Your task to perform on an android device: Go to wifi settings Image 0: 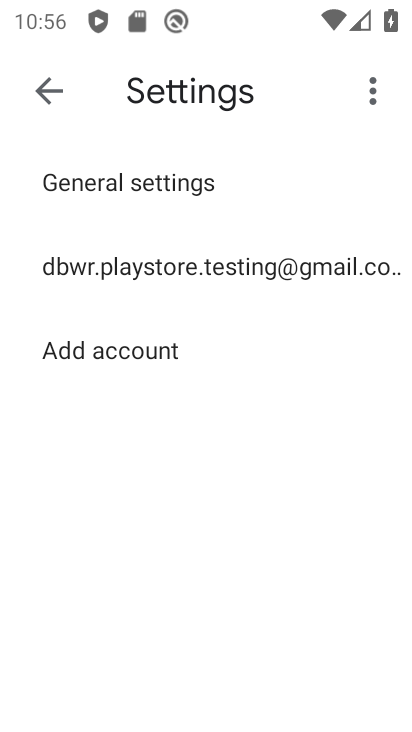
Step 0: press home button
Your task to perform on an android device: Go to wifi settings Image 1: 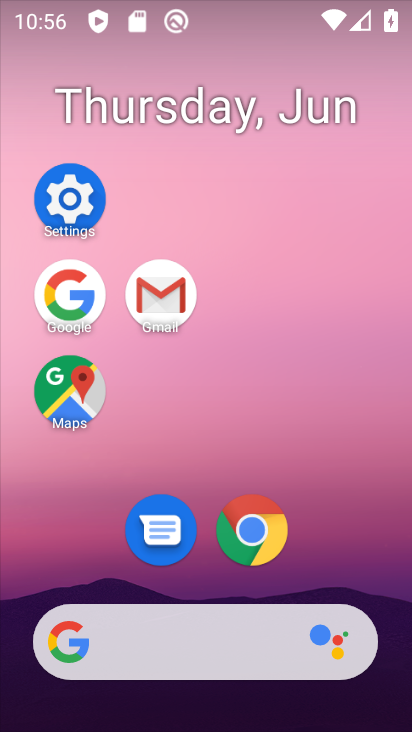
Step 1: click (67, 211)
Your task to perform on an android device: Go to wifi settings Image 2: 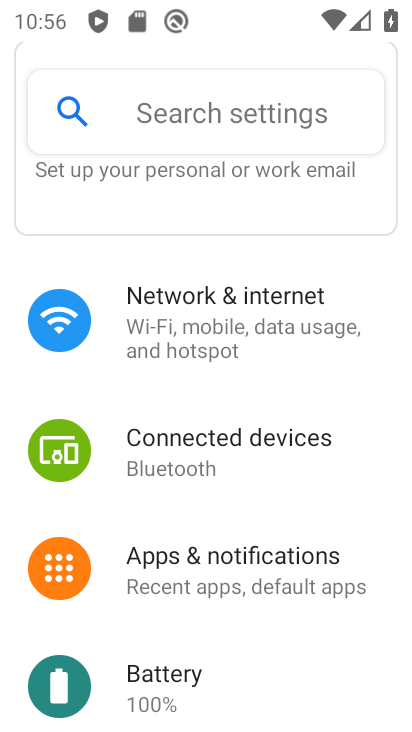
Step 2: click (201, 332)
Your task to perform on an android device: Go to wifi settings Image 3: 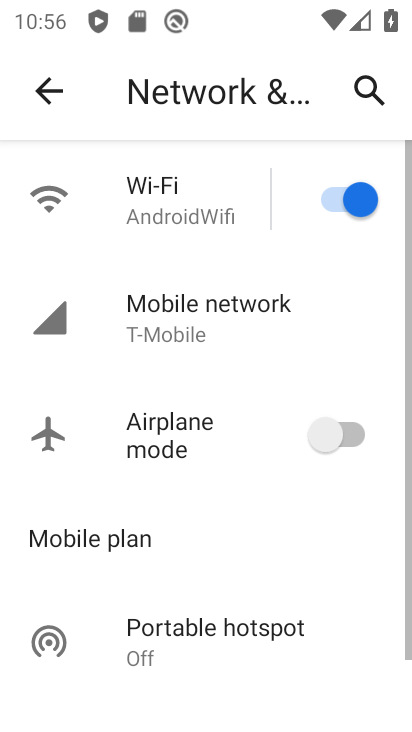
Step 3: click (181, 218)
Your task to perform on an android device: Go to wifi settings Image 4: 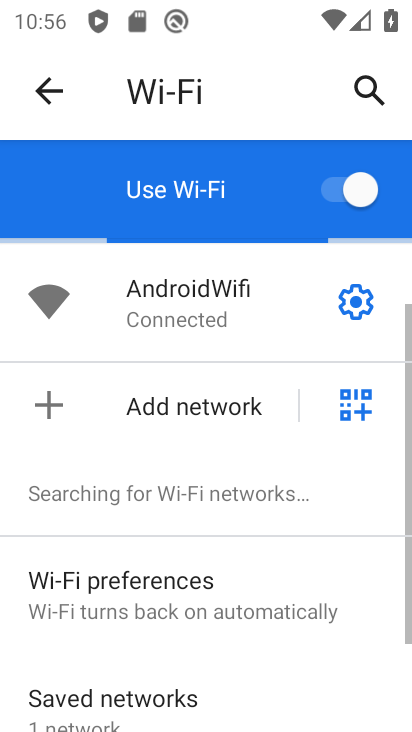
Step 4: click (370, 292)
Your task to perform on an android device: Go to wifi settings Image 5: 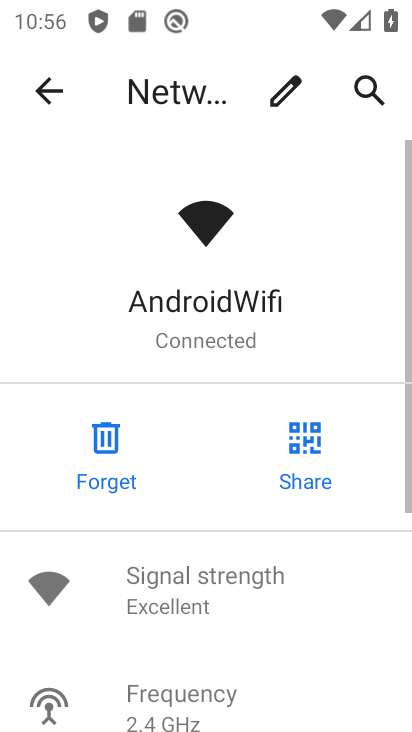
Step 5: task complete